Your task to perform on an android device: refresh tabs in the chrome app Image 0: 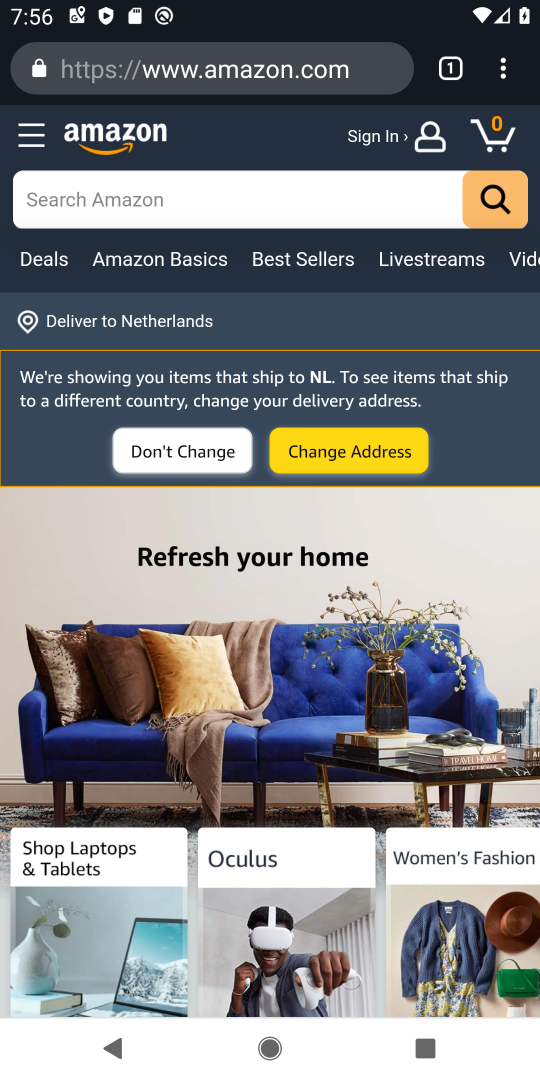
Step 0: press home button
Your task to perform on an android device: refresh tabs in the chrome app Image 1: 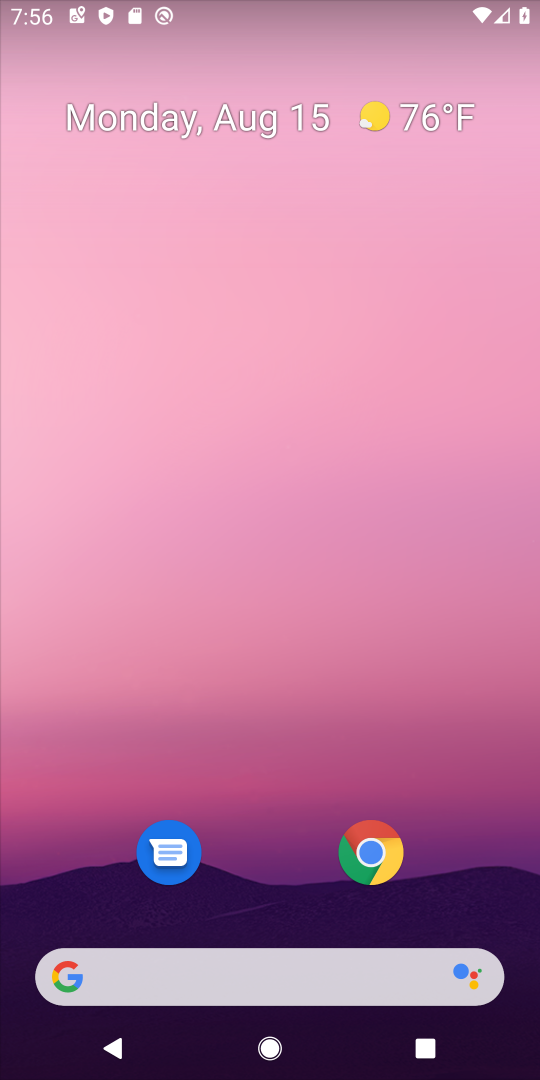
Step 1: click (370, 852)
Your task to perform on an android device: refresh tabs in the chrome app Image 2: 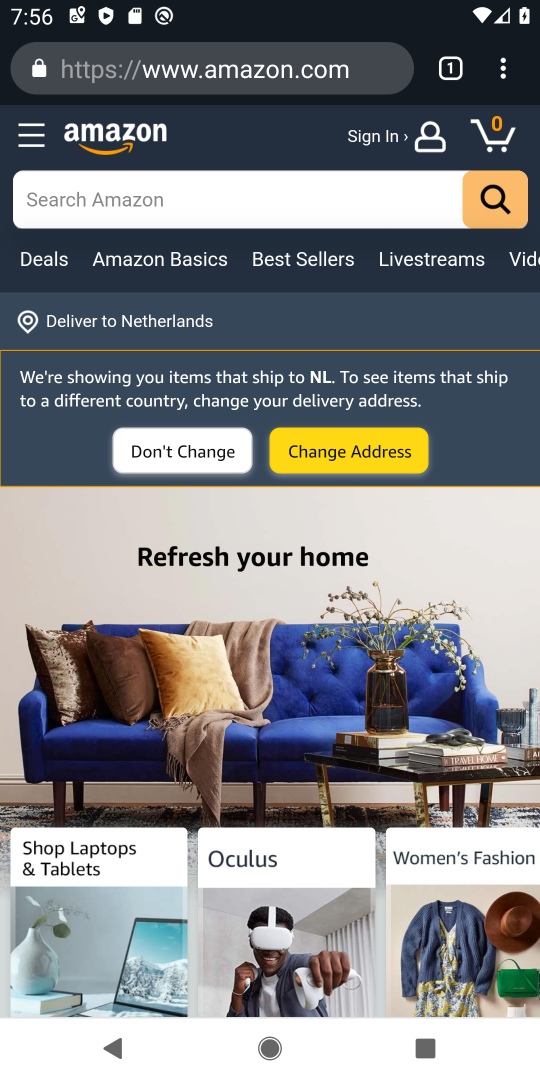
Step 2: click (503, 72)
Your task to perform on an android device: refresh tabs in the chrome app Image 3: 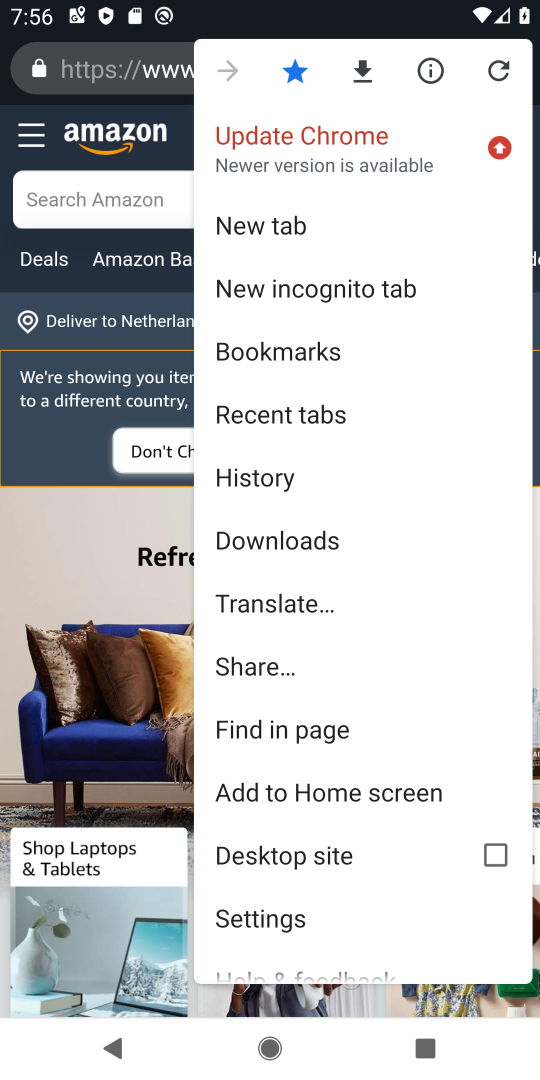
Step 3: click (503, 72)
Your task to perform on an android device: refresh tabs in the chrome app Image 4: 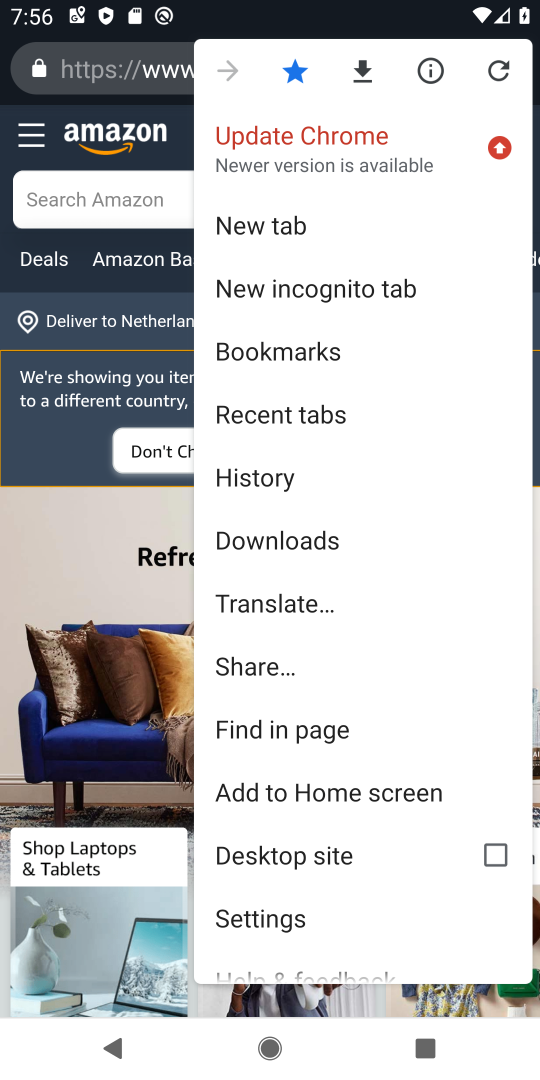
Step 4: click (490, 70)
Your task to perform on an android device: refresh tabs in the chrome app Image 5: 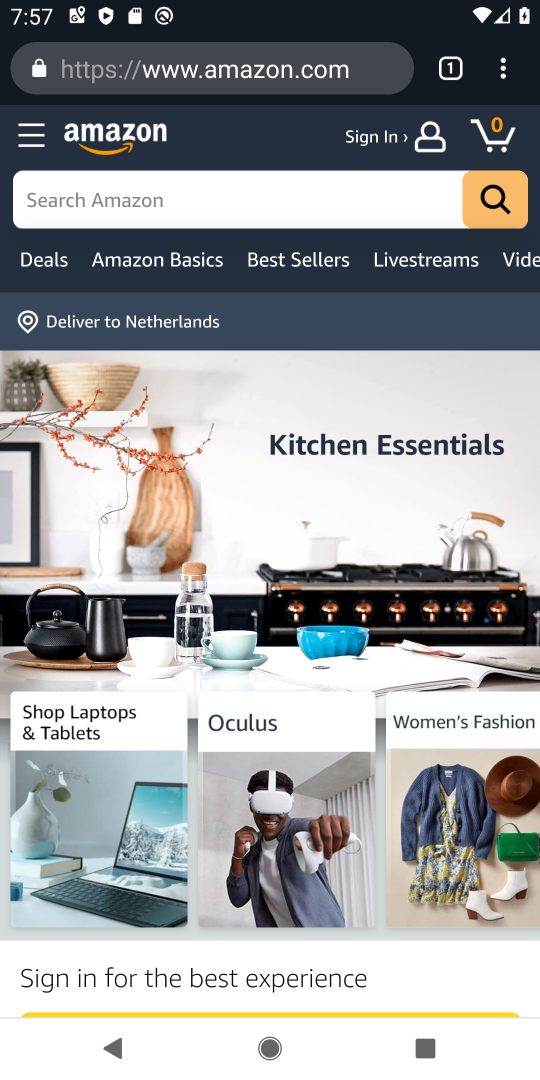
Step 5: task complete